Your task to perform on an android device: empty trash in google photos Image 0: 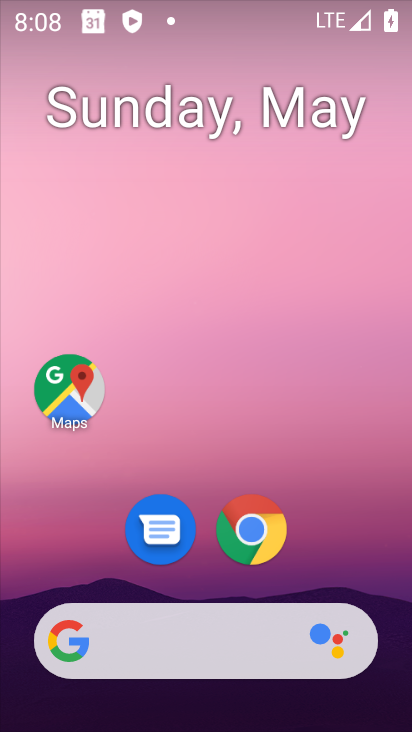
Step 0: drag from (191, 598) to (273, 10)
Your task to perform on an android device: empty trash in google photos Image 1: 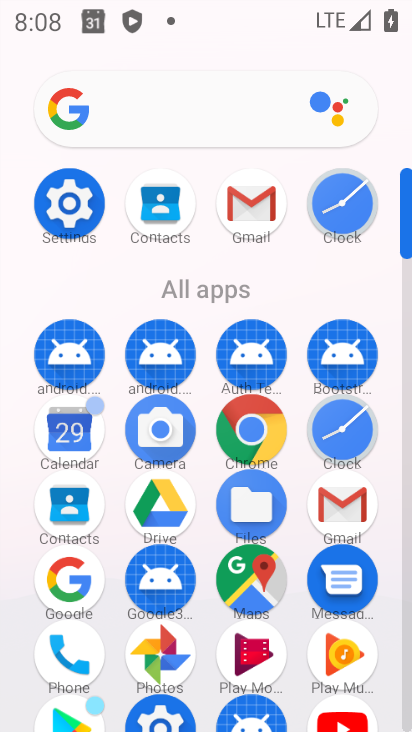
Step 1: click (162, 659)
Your task to perform on an android device: empty trash in google photos Image 2: 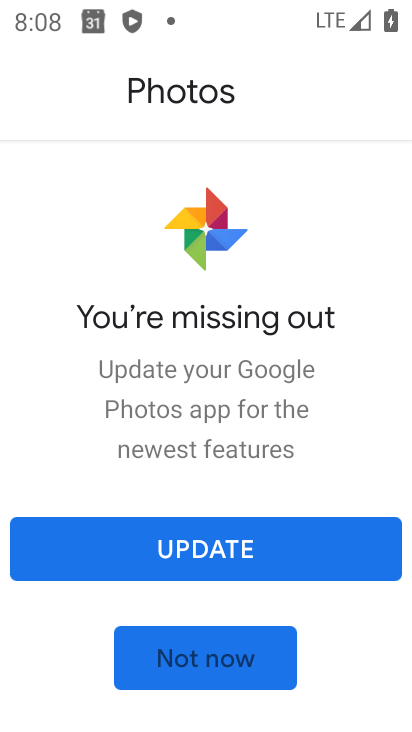
Step 2: click (209, 657)
Your task to perform on an android device: empty trash in google photos Image 3: 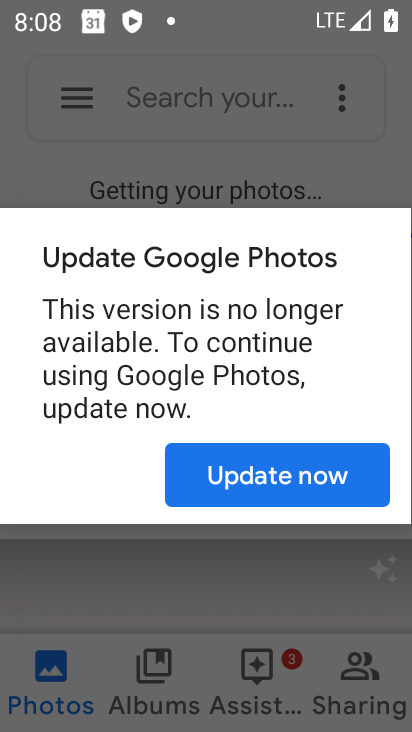
Step 3: click (245, 477)
Your task to perform on an android device: empty trash in google photos Image 4: 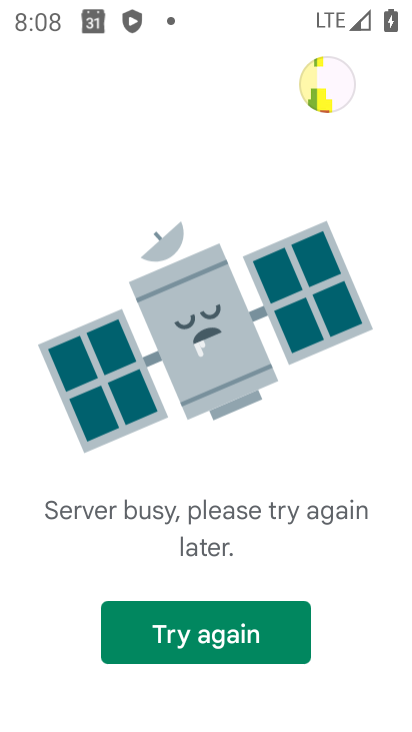
Step 4: click (190, 634)
Your task to perform on an android device: empty trash in google photos Image 5: 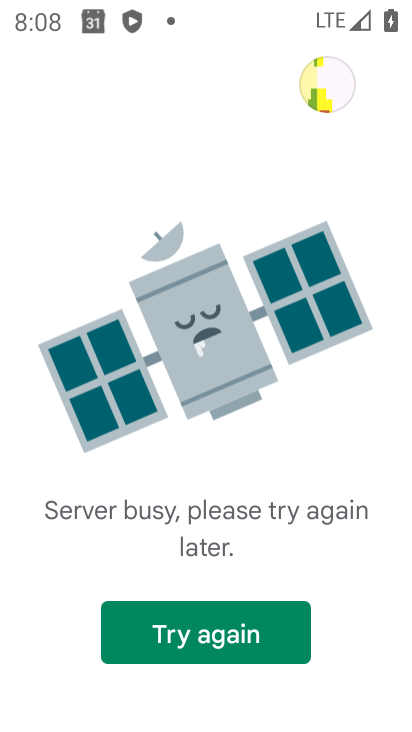
Step 5: press back button
Your task to perform on an android device: empty trash in google photos Image 6: 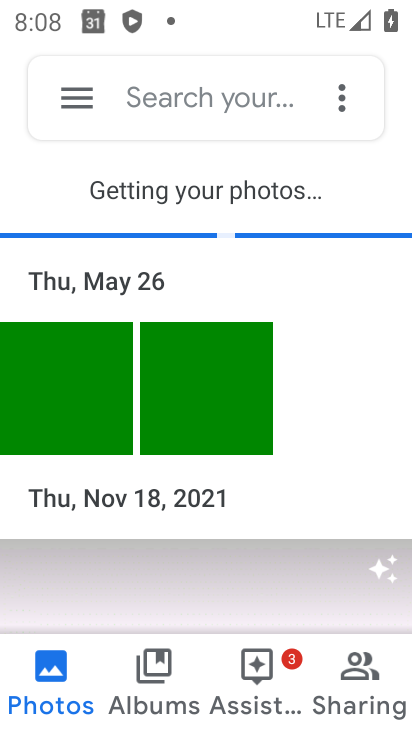
Step 6: click (67, 88)
Your task to perform on an android device: empty trash in google photos Image 7: 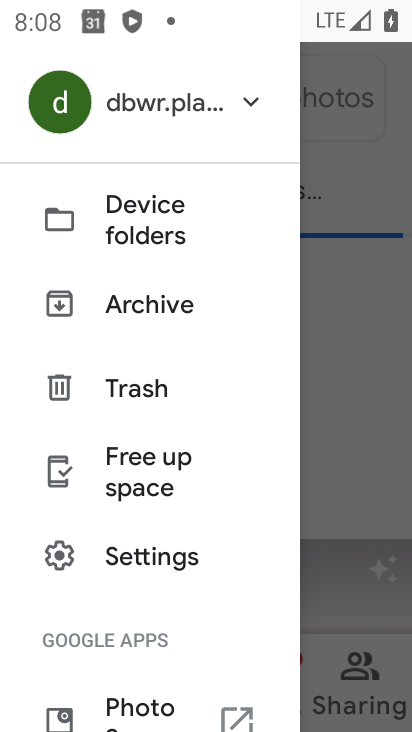
Step 7: click (140, 392)
Your task to perform on an android device: empty trash in google photos Image 8: 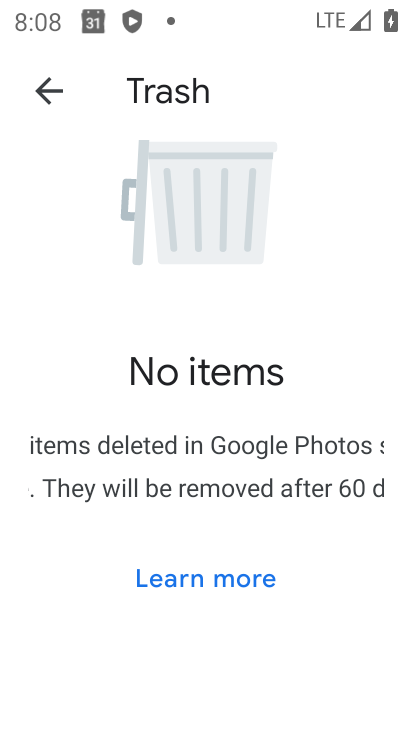
Step 8: task complete